Your task to perform on an android device: Open Maps and search for coffee Image 0: 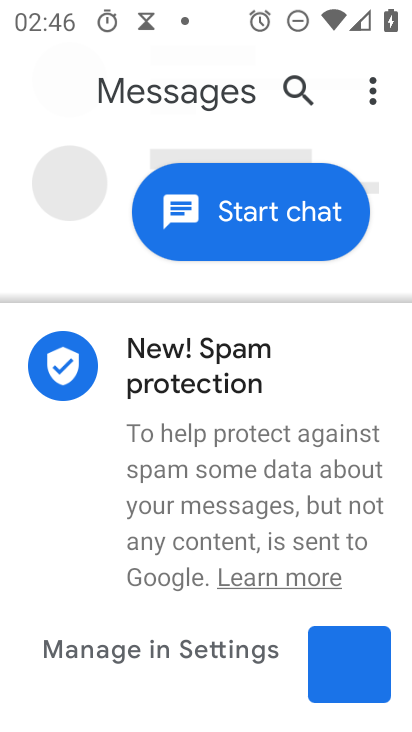
Step 0: press home button
Your task to perform on an android device: Open Maps and search for coffee Image 1: 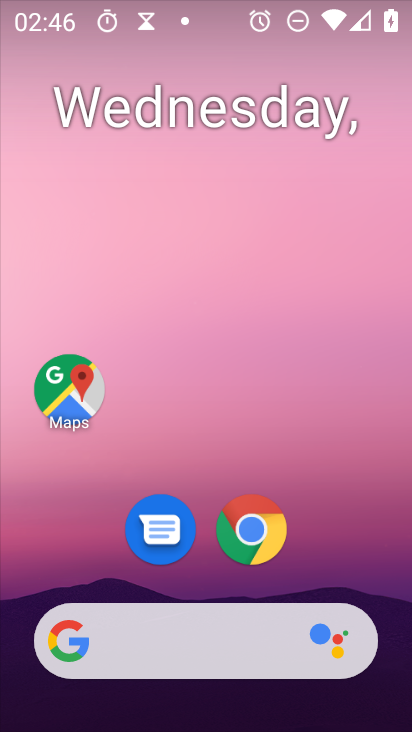
Step 1: drag from (255, 601) to (303, 115)
Your task to perform on an android device: Open Maps and search for coffee Image 2: 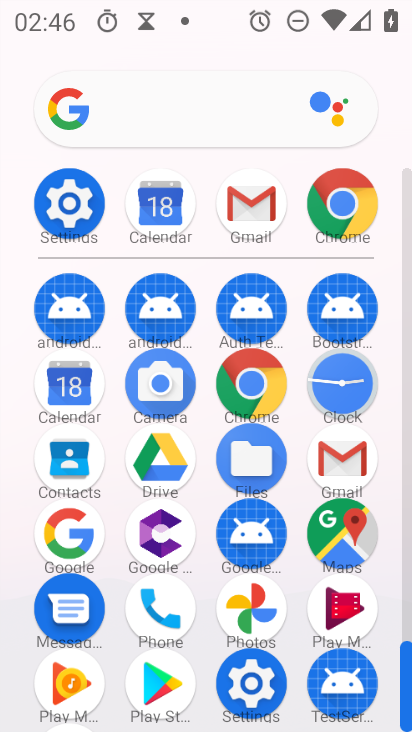
Step 2: click (326, 523)
Your task to perform on an android device: Open Maps and search for coffee Image 3: 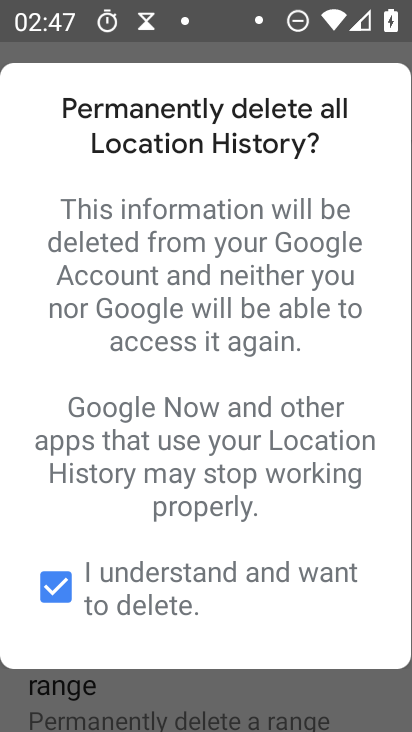
Step 3: press home button
Your task to perform on an android device: Open Maps and search for coffee Image 4: 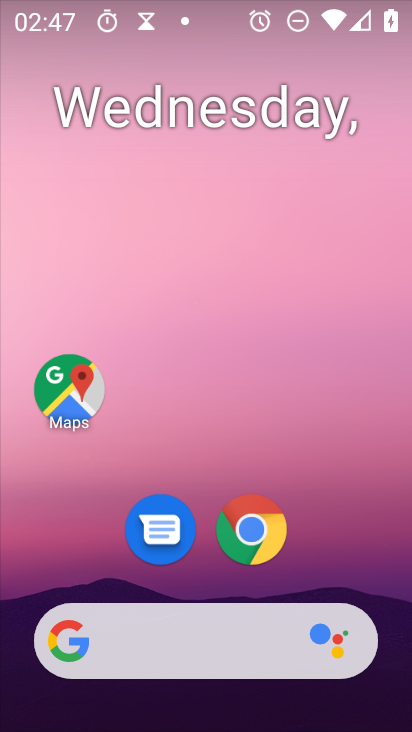
Step 4: drag from (260, 568) to (370, 63)
Your task to perform on an android device: Open Maps and search for coffee Image 5: 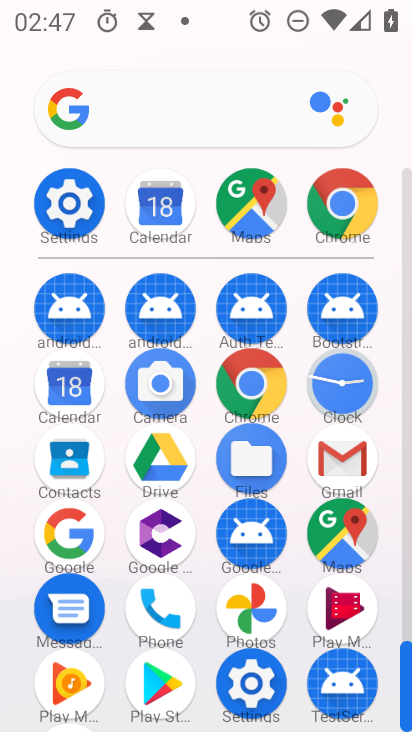
Step 5: click (346, 539)
Your task to perform on an android device: Open Maps and search for coffee Image 6: 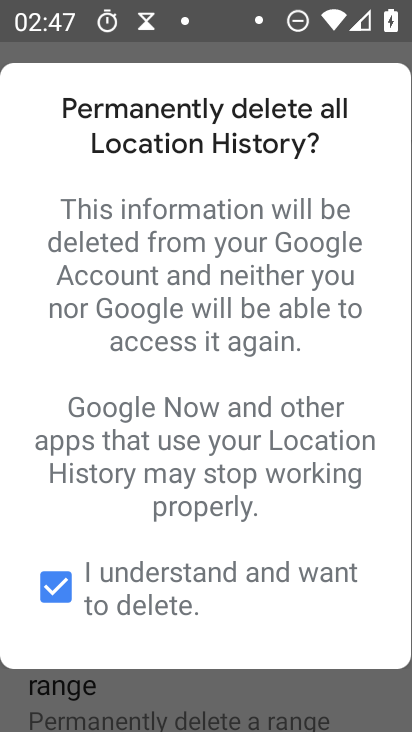
Step 6: task complete